Your task to perform on an android device: Open privacy settings Image 0: 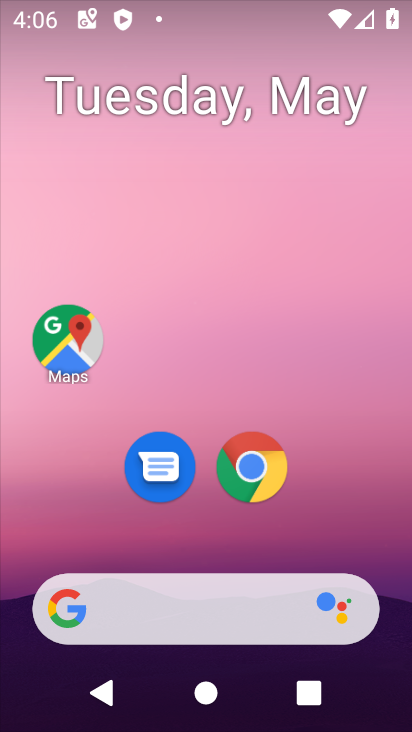
Step 0: drag from (137, 720) to (220, 37)
Your task to perform on an android device: Open privacy settings Image 1: 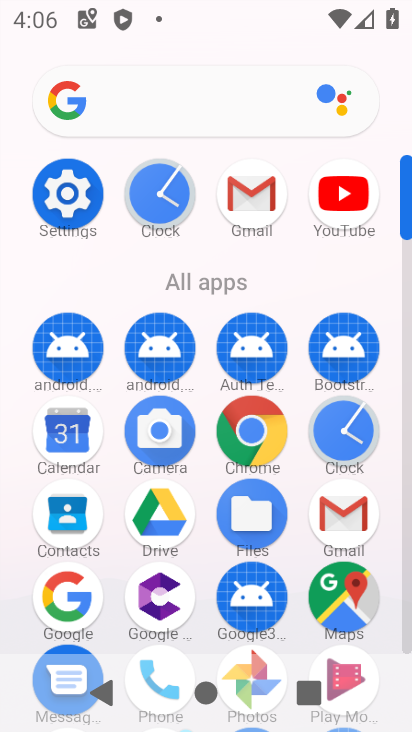
Step 1: click (73, 205)
Your task to perform on an android device: Open privacy settings Image 2: 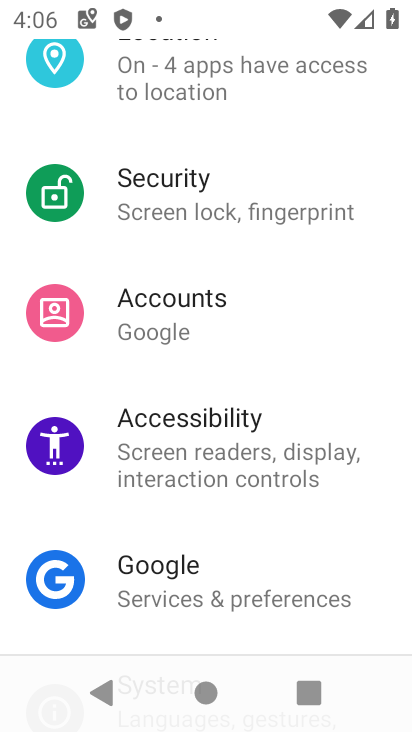
Step 2: drag from (290, 155) to (252, 628)
Your task to perform on an android device: Open privacy settings Image 3: 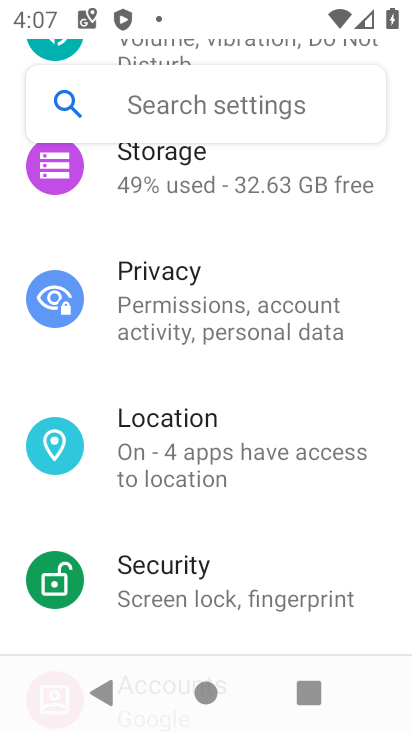
Step 3: drag from (285, 275) to (269, 648)
Your task to perform on an android device: Open privacy settings Image 4: 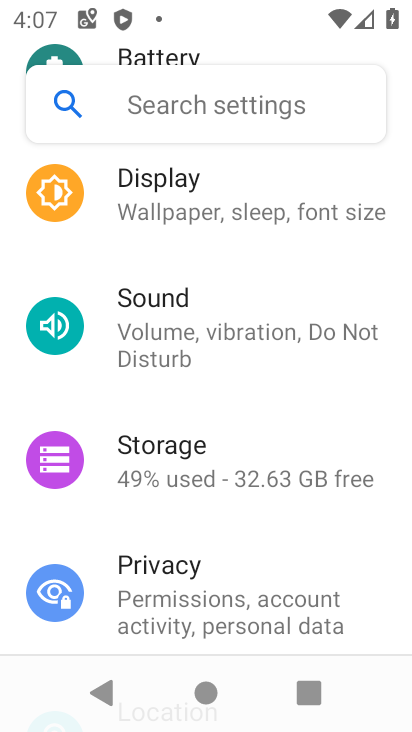
Step 4: click (213, 618)
Your task to perform on an android device: Open privacy settings Image 5: 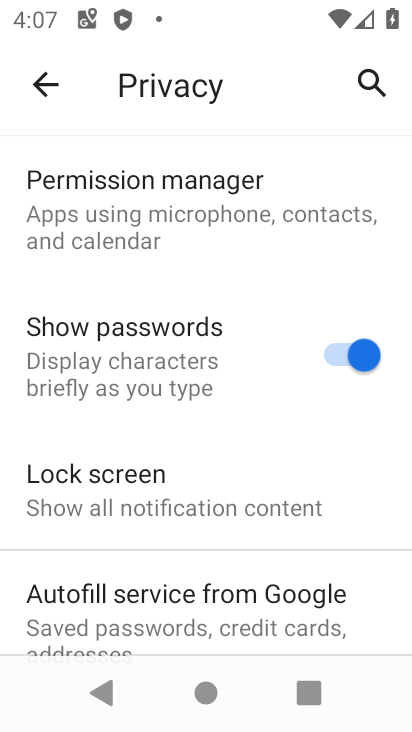
Step 5: task complete